Your task to perform on an android device: turn on wifi Image 0: 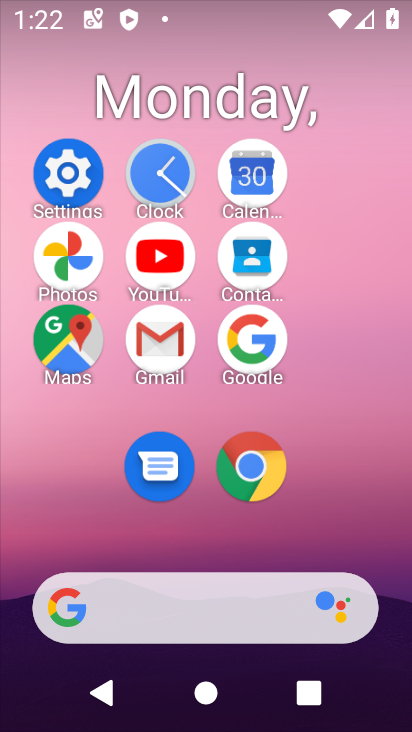
Step 0: click (75, 162)
Your task to perform on an android device: turn on wifi Image 1: 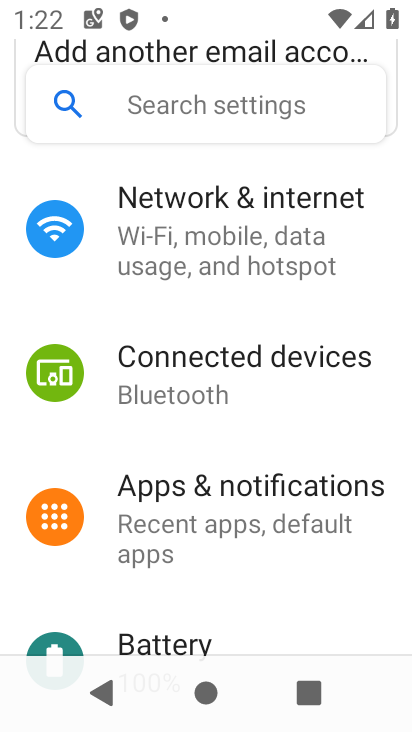
Step 1: click (225, 252)
Your task to perform on an android device: turn on wifi Image 2: 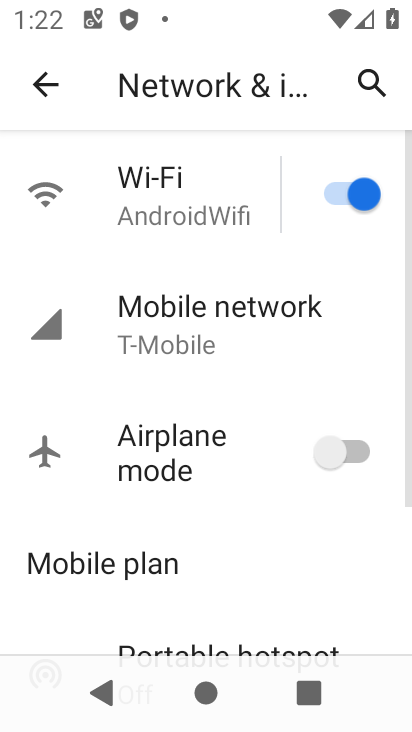
Step 2: task complete